Your task to perform on an android device: Go to Google maps Image 0: 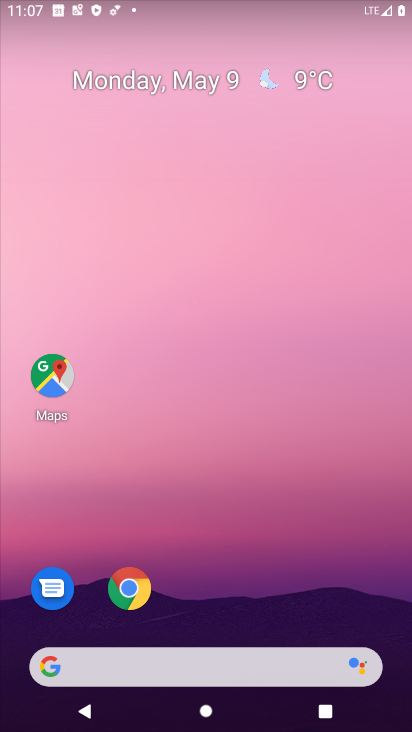
Step 0: press home button
Your task to perform on an android device: Go to Google maps Image 1: 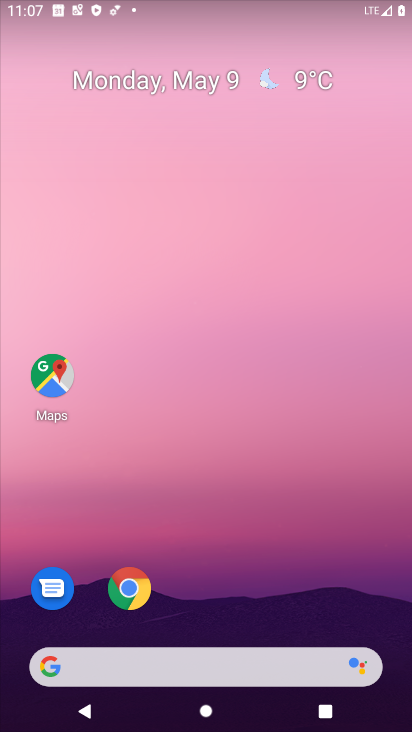
Step 1: drag from (149, 670) to (311, 72)
Your task to perform on an android device: Go to Google maps Image 2: 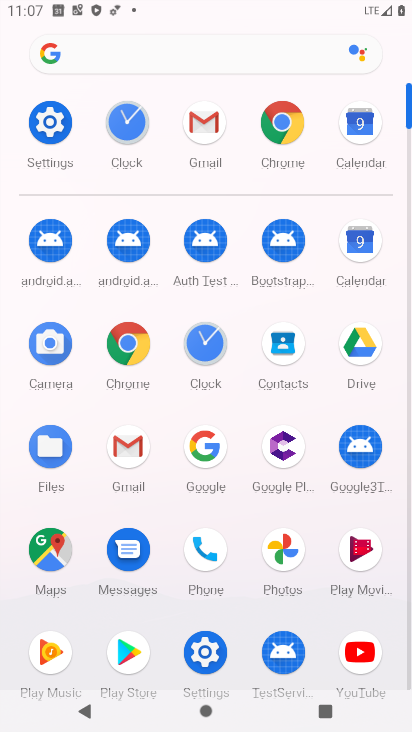
Step 2: click (53, 559)
Your task to perform on an android device: Go to Google maps Image 3: 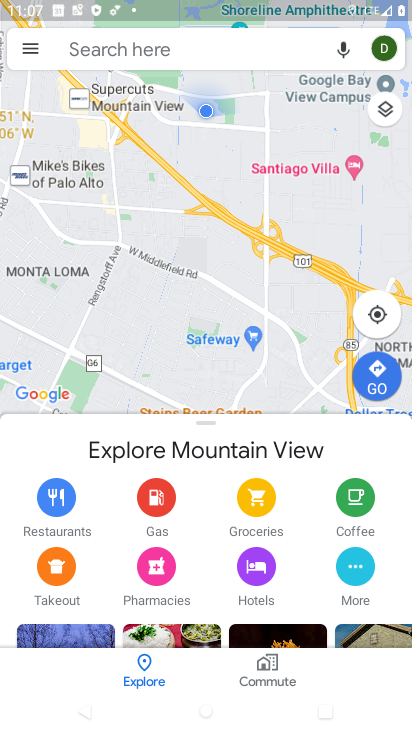
Step 3: task complete